Your task to perform on an android device: check out phone information Image 0: 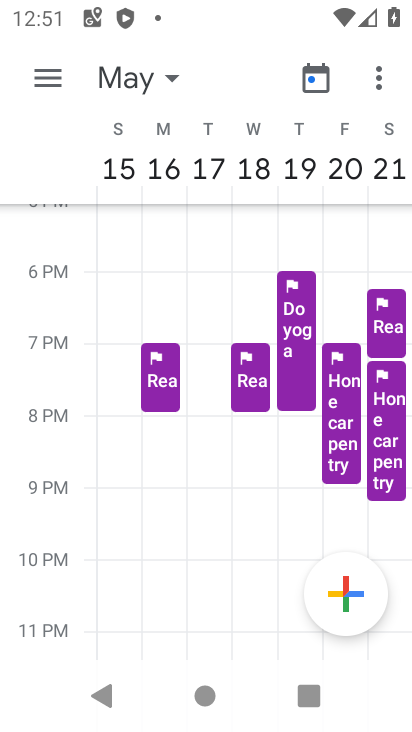
Step 0: press home button
Your task to perform on an android device: check out phone information Image 1: 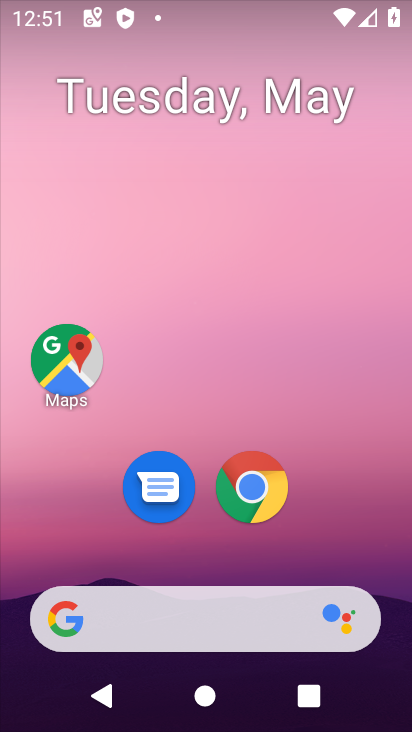
Step 1: drag from (296, 560) to (304, 158)
Your task to perform on an android device: check out phone information Image 2: 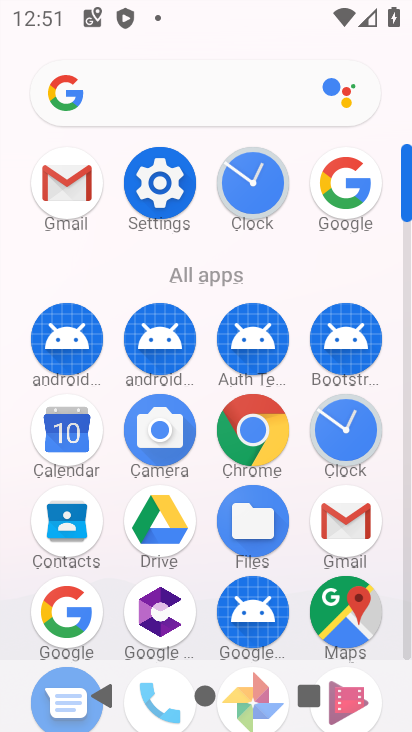
Step 2: click (145, 189)
Your task to perform on an android device: check out phone information Image 3: 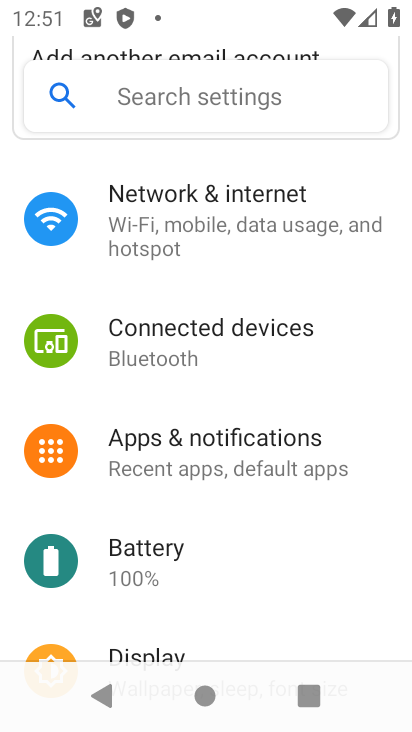
Step 3: drag from (277, 575) to (277, 266)
Your task to perform on an android device: check out phone information Image 4: 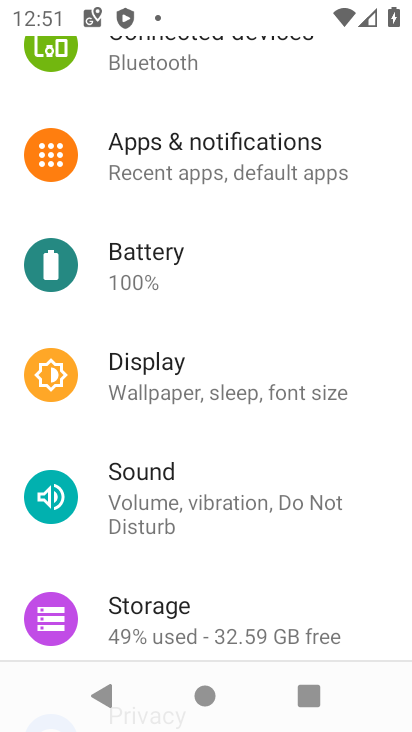
Step 4: drag from (298, 566) to (295, 300)
Your task to perform on an android device: check out phone information Image 5: 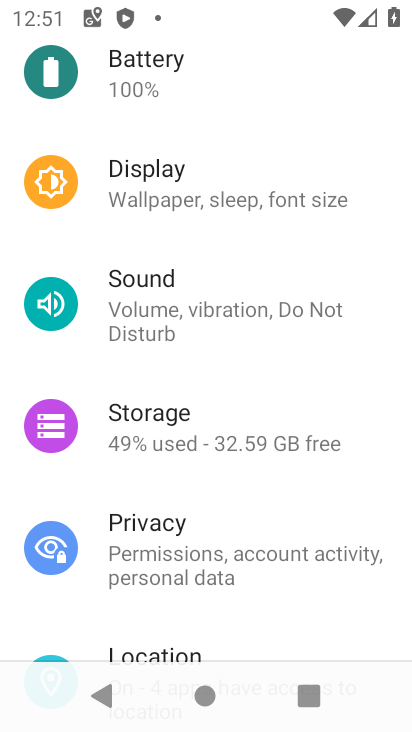
Step 5: drag from (225, 619) to (284, 239)
Your task to perform on an android device: check out phone information Image 6: 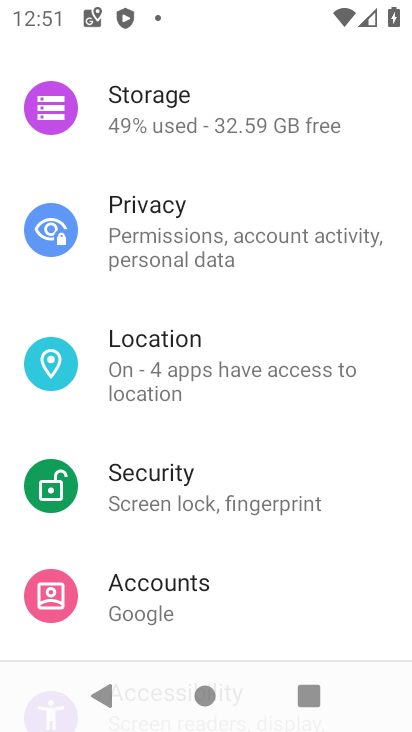
Step 6: drag from (211, 615) to (255, 238)
Your task to perform on an android device: check out phone information Image 7: 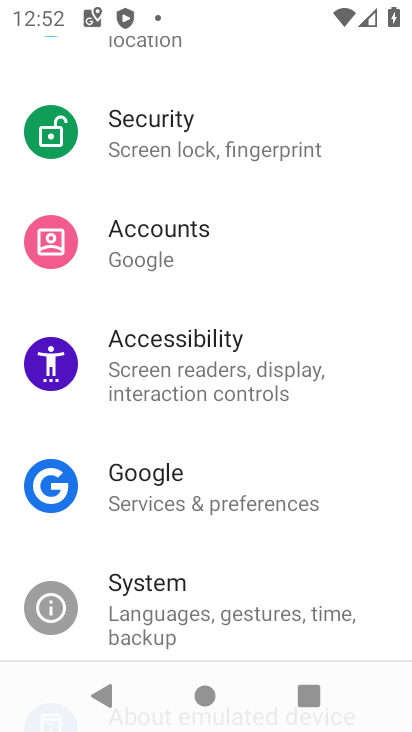
Step 7: drag from (228, 591) to (252, 250)
Your task to perform on an android device: check out phone information Image 8: 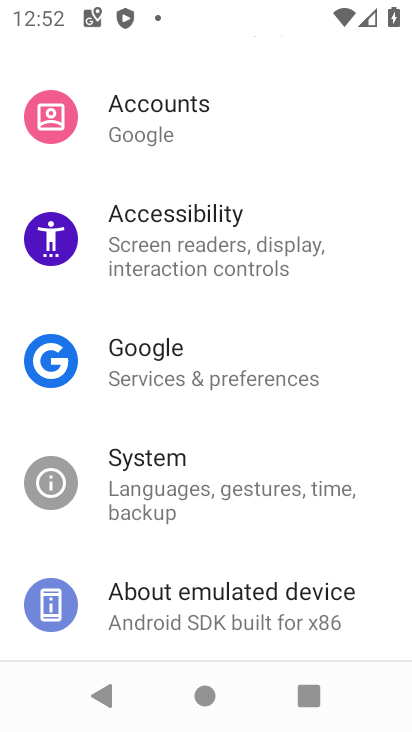
Step 8: click (229, 609)
Your task to perform on an android device: check out phone information Image 9: 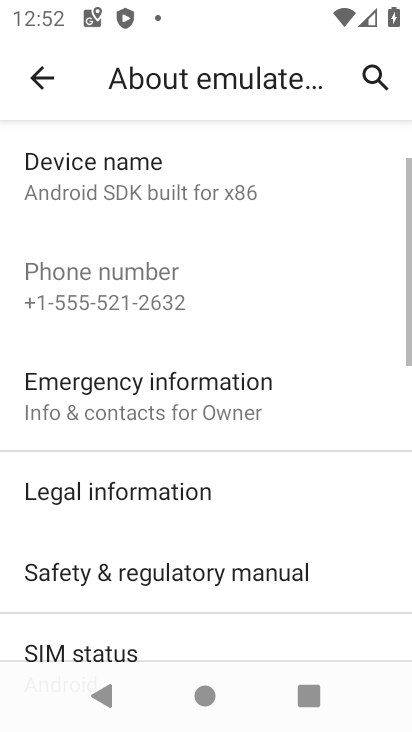
Step 9: drag from (275, 546) to (294, 278)
Your task to perform on an android device: check out phone information Image 10: 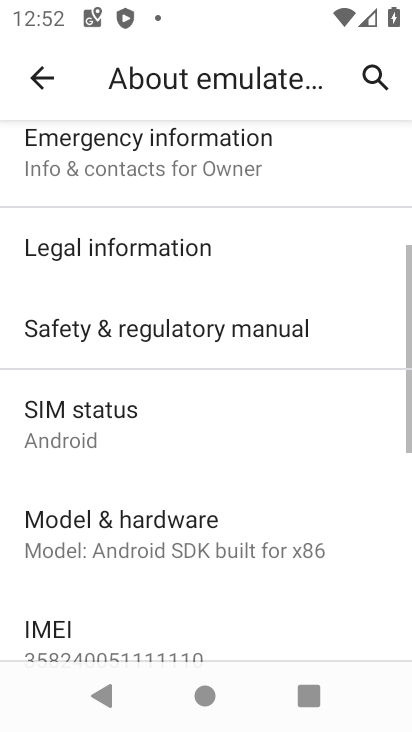
Step 10: click (165, 535)
Your task to perform on an android device: check out phone information Image 11: 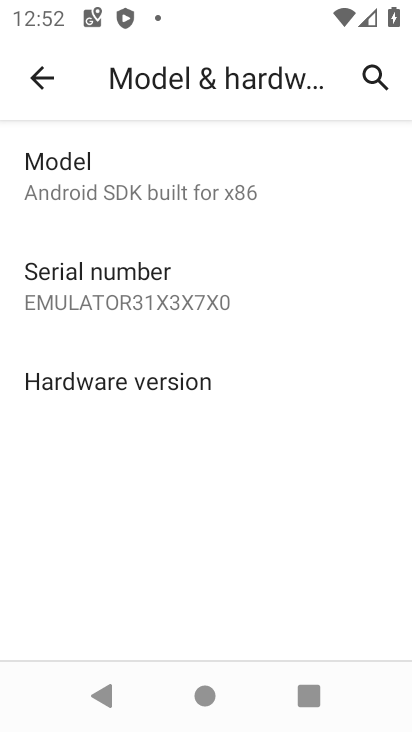
Step 11: task complete